Your task to perform on an android device: Open Maps and search for coffee Image 0: 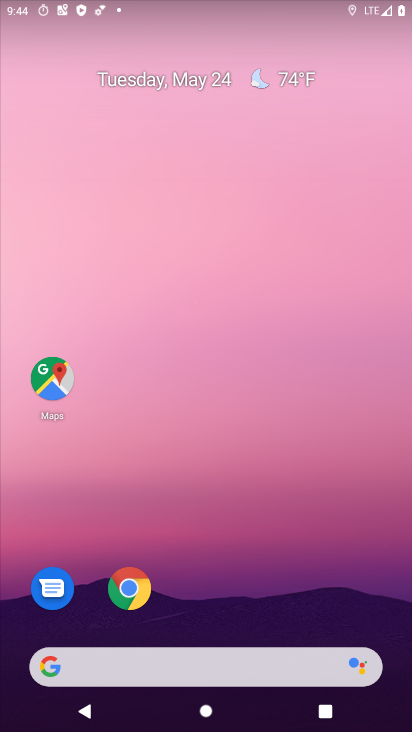
Step 0: drag from (242, 594) to (137, 48)
Your task to perform on an android device: Open Maps and search for coffee Image 1: 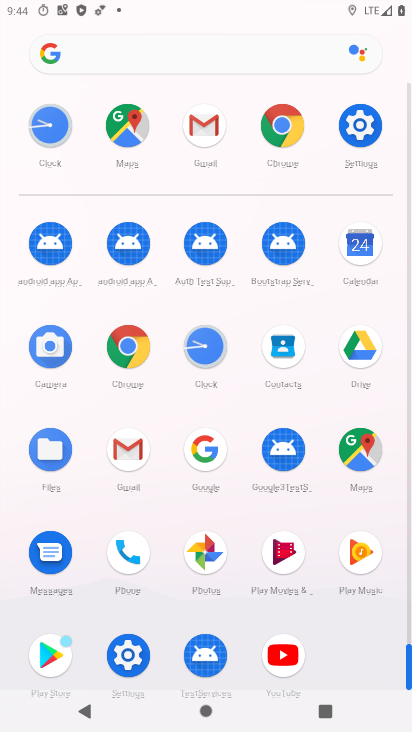
Step 1: drag from (9, 583) to (2, 235)
Your task to perform on an android device: Open Maps and search for coffee Image 2: 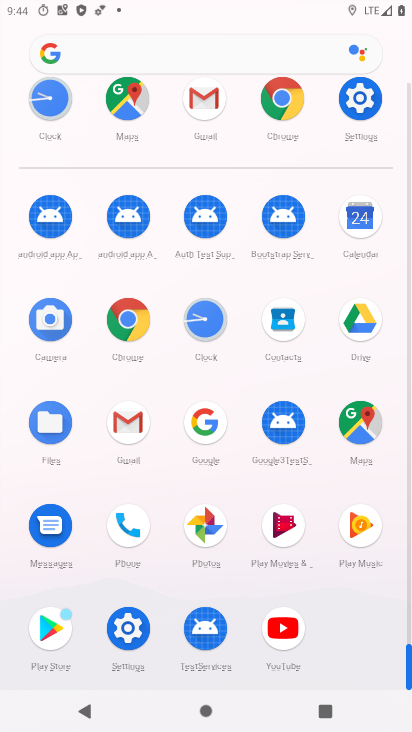
Step 2: click (357, 421)
Your task to perform on an android device: Open Maps and search for coffee Image 3: 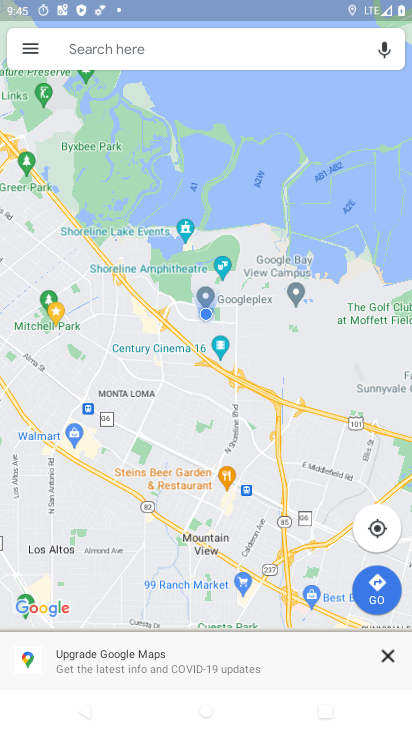
Step 3: click (163, 55)
Your task to perform on an android device: Open Maps and search for coffee Image 4: 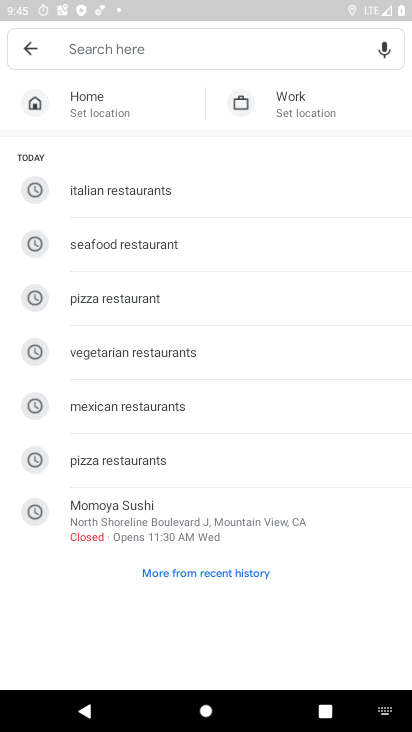
Step 4: type "Reddit.com"
Your task to perform on an android device: Open Maps and search for coffee Image 5: 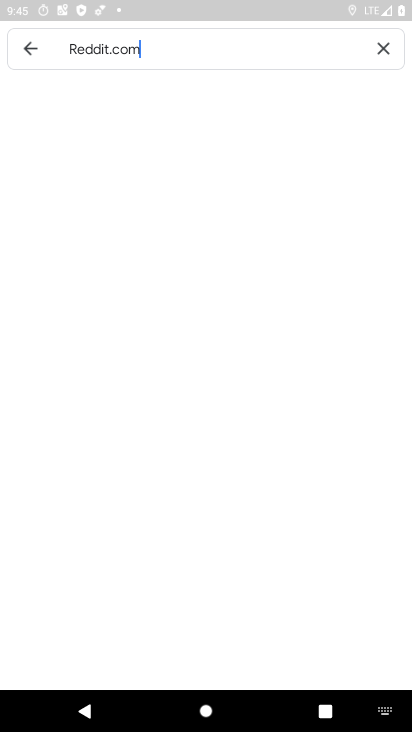
Step 5: type ""
Your task to perform on an android device: Open Maps and search for coffee Image 6: 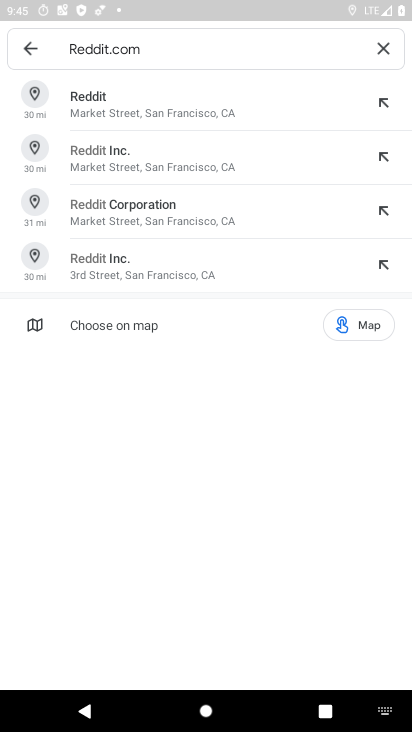
Step 6: click (137, 111)
Your task to perform on an android device: Open Maps and search for coffee Image 7: 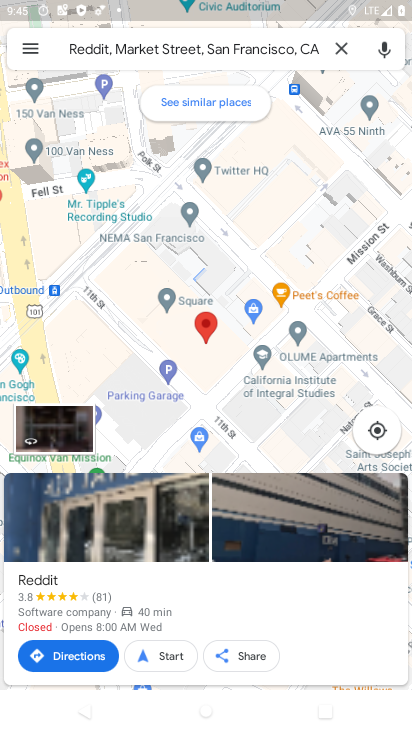
Step 7: click (339, 44)
Your task to perform on an android device: Open Maps and search for coffee Image 8: 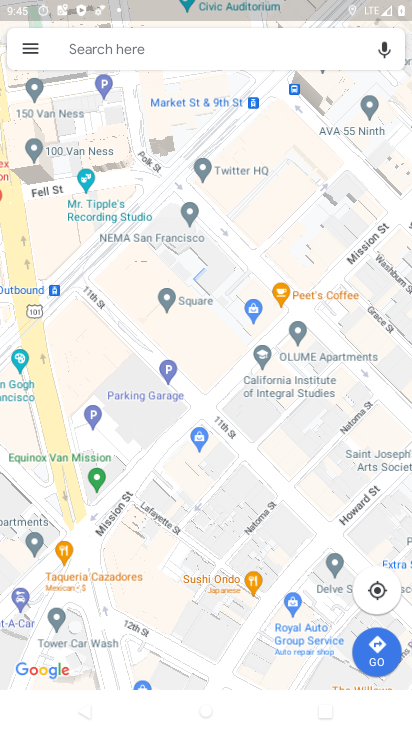
Step 8: click (182, 42)
Your task to perform on an android device: Open Maps and search for coffee Image 9: 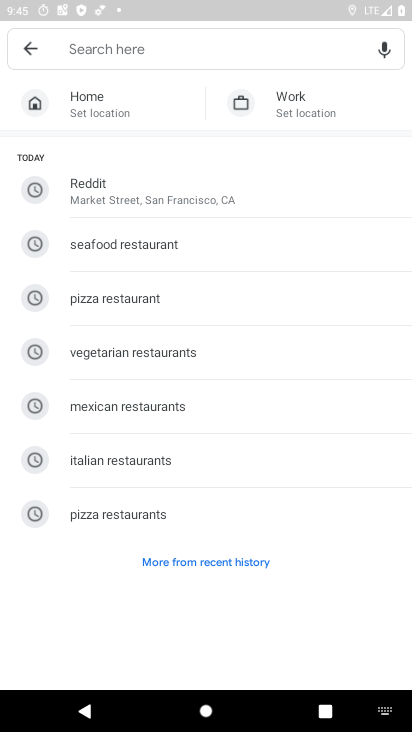
Step 9: type "coffee"
Your task to perform on an android device: Open Maps and search for coffee Image 10: 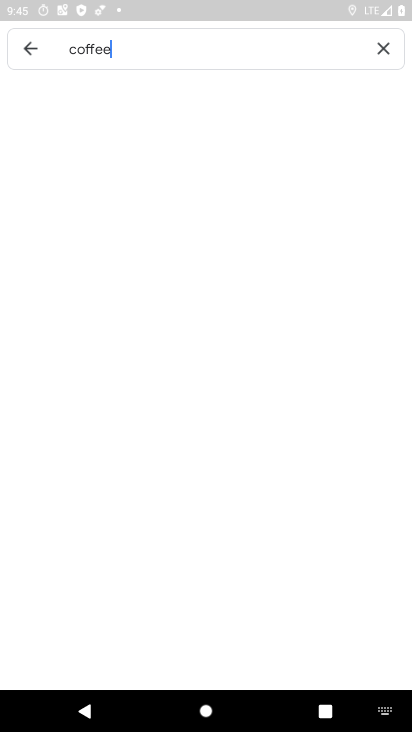
Step 10: type ""
Your task to perform on an android device: Open Maps and search for coffee Image 11: 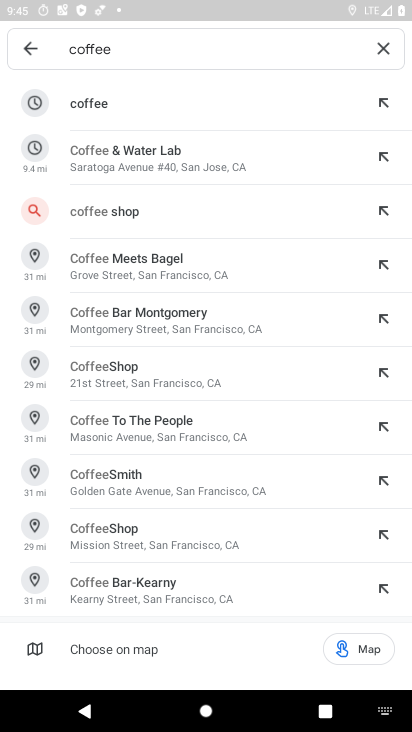
Step 11: click (156, 112)
Your task to perform on an android device: Open Maps and search for coffee Image 12: 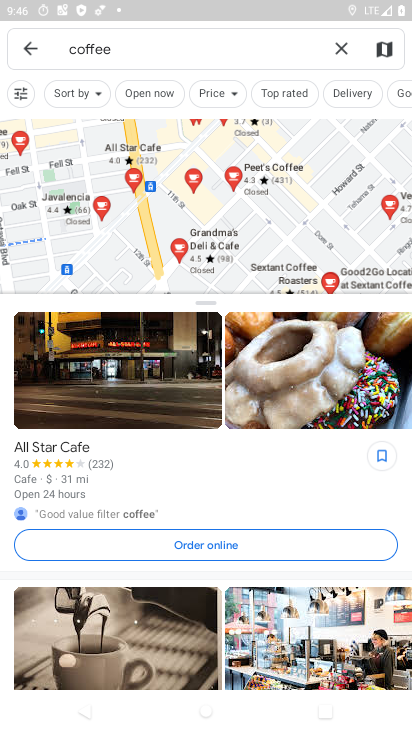
Step 12: task complete